Your task to perform on an android device: Open privacy settings Image 0: 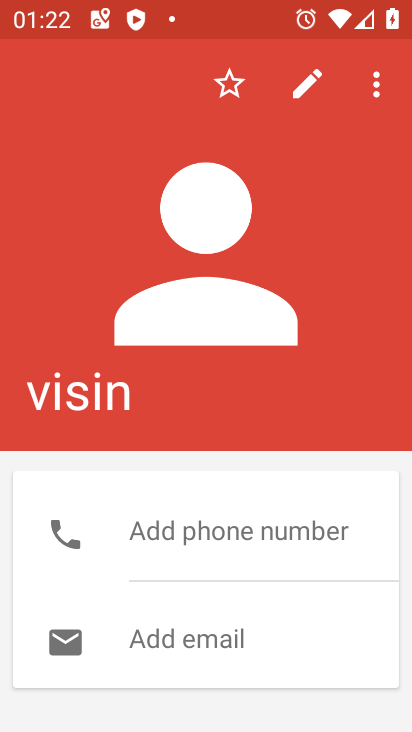
Step 0: press home button
Your task to perform on an android device: Open privacy settings Image 1: 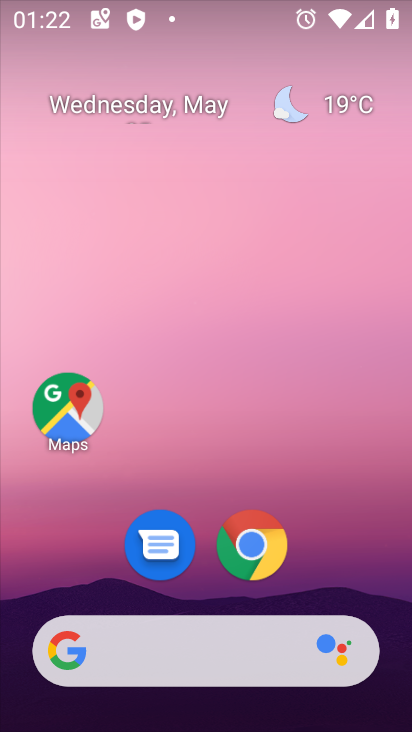
Step 1: drag from (275, 512) to (245, 70)
Your task to perform on an android device: Open privacy settings Image 2: 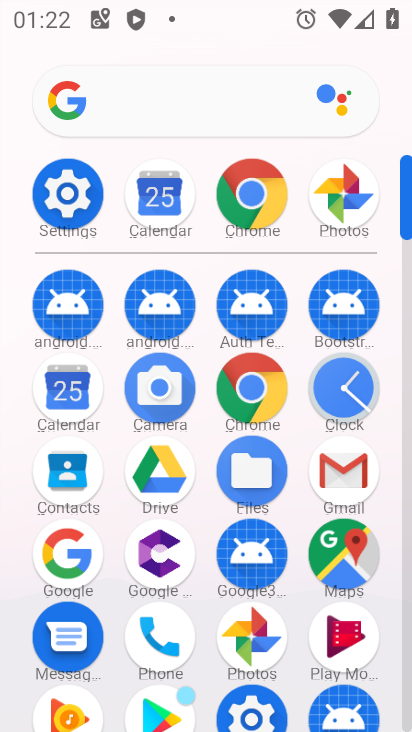
Step 2: click (81, 179)
Your task to perform on an android device: Open privacy settings Image 3: 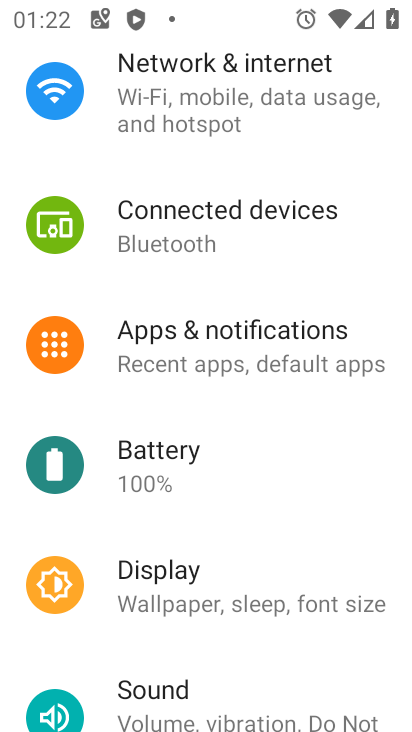
Step 3: drag from (194, 613) to (279, 132)
Your task to perform on an android device: Open privacy settings Image 4: 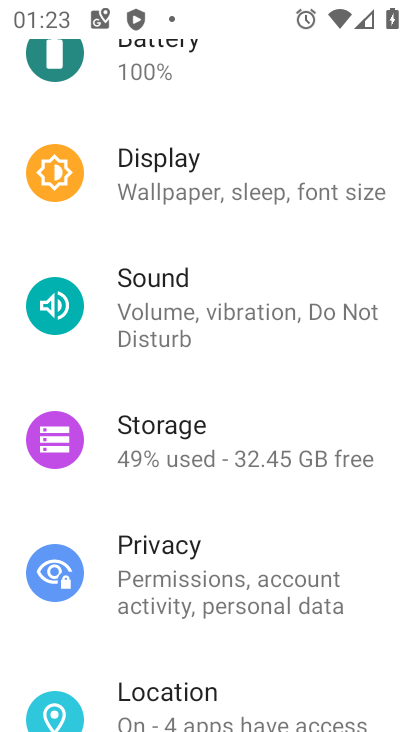
Step 4: click (135, 557)
Your task to perform on an android device: Open privacy settings Image 5: 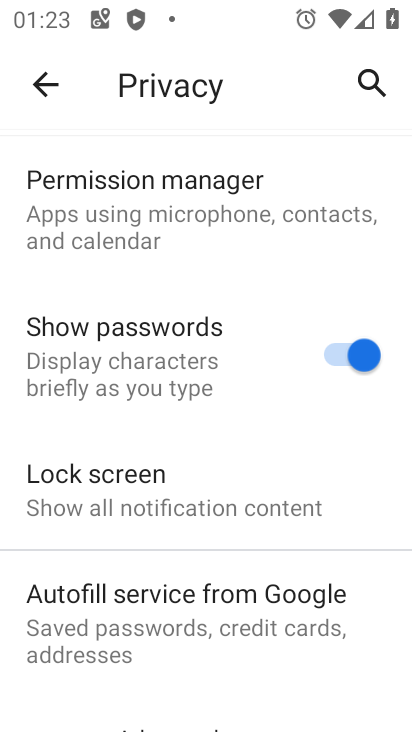
Step 5: task complete